Your task to perform on an android device: Go to internet settings Image 0: 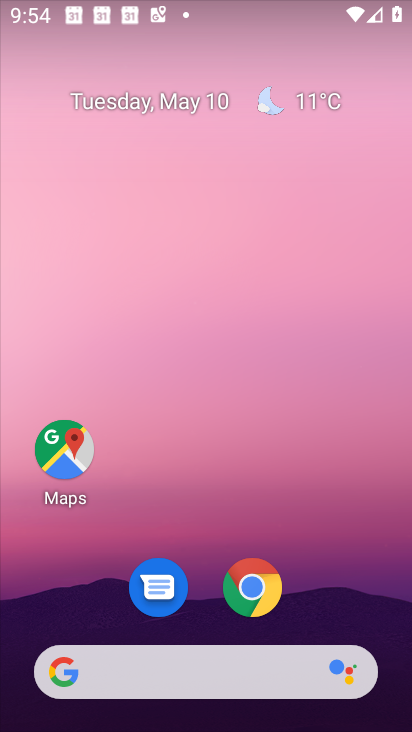
Step 0: drag from (327, 559) to (326, 96)
Your task to perform on an android device: Go to internet settings Image 1: 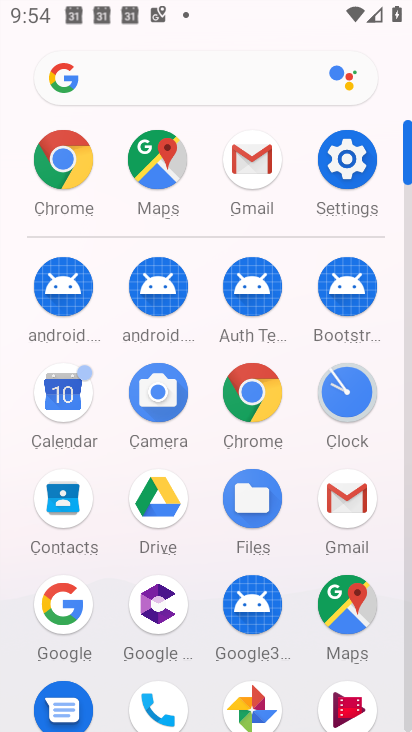
Step 1: click (328, 174)
Your task to perform on an android device: Go to internet settings Image 2: 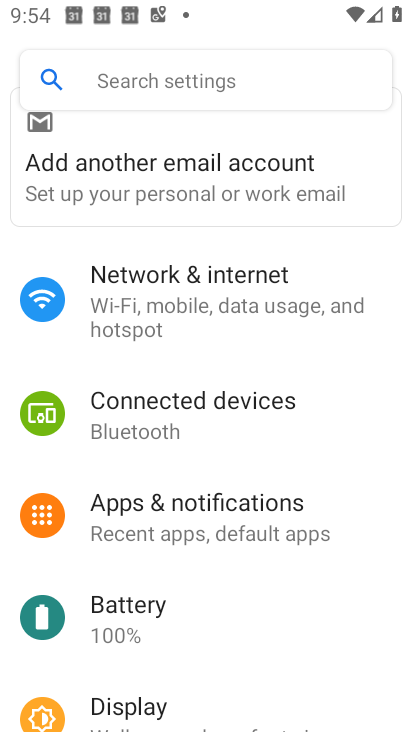
Step 2: click (219, 315)
Your task to perform on an android device: Go to internet settings Image 3: 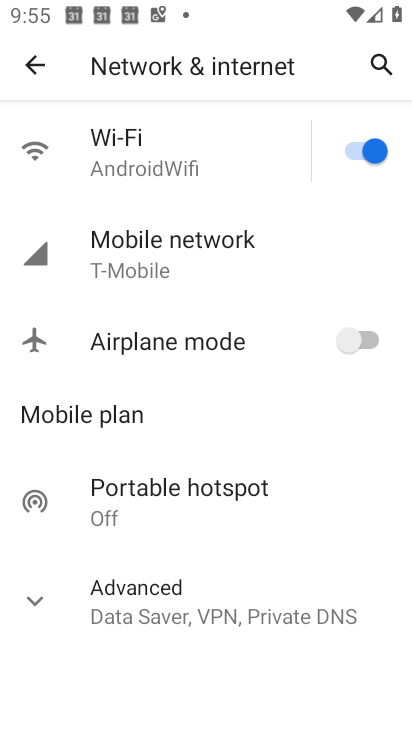
Step 3: task complete